Your task to perform on an android device: toggle translation in the chrome app Image 0: 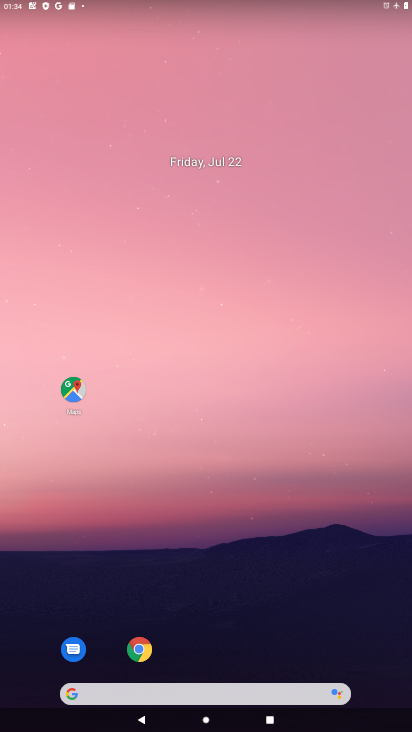
Step 0: drag from (286, 594) to (204, 56)
Your task to perform on an android device: toggle translation in the chrome app Image 1: 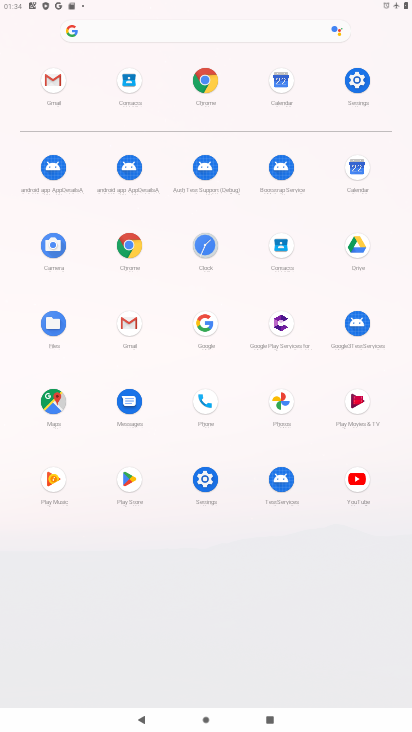
Step 1: click (129, 243)
Your task to perform on an android device: toggle translation in the chrome app Image 2: 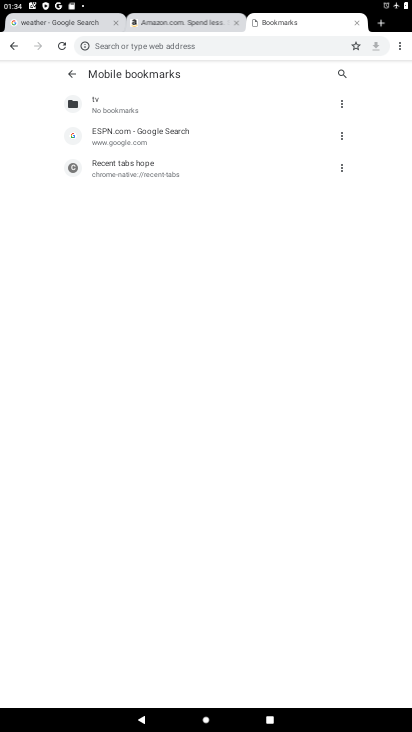
Step 2: drag from (402, 45) to (315, 246)
Your task to perform on an android device: toggle translation in the chrome app Image 3: 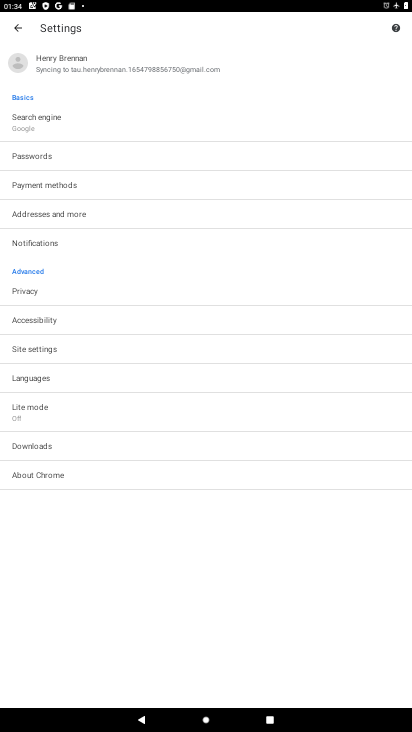
Step 3: click (67, 385)
Your task to perform on an android device: toggle translation in the chrome app Image 4: 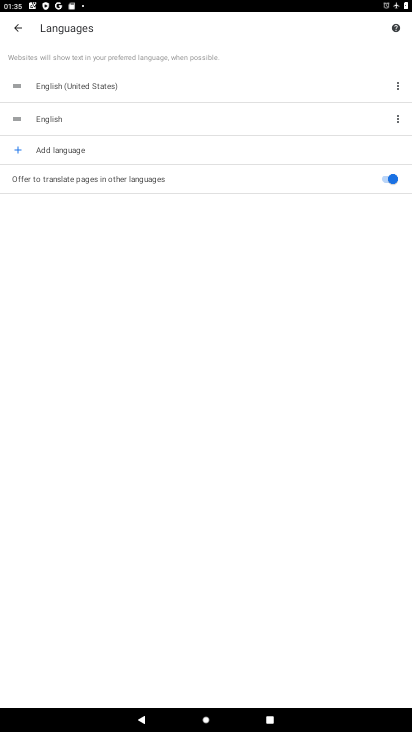
Step 4: click (384, 173)
Your task to perform on an android device: toggle translation in the chrome app Image 5: 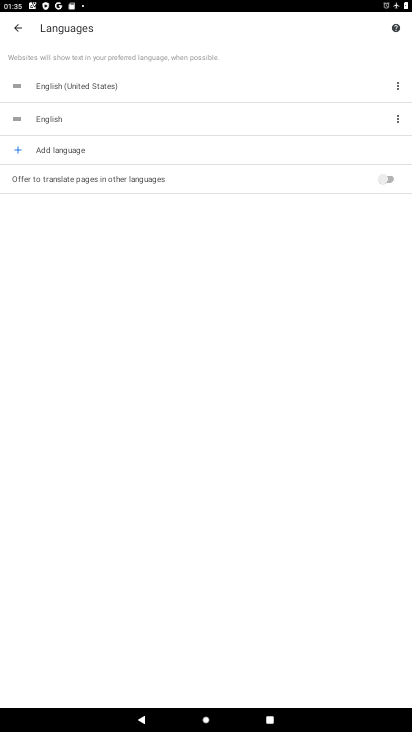
Step 5: task complete